Your task to perform on an android device: see creations saved in the google photos Image 0: 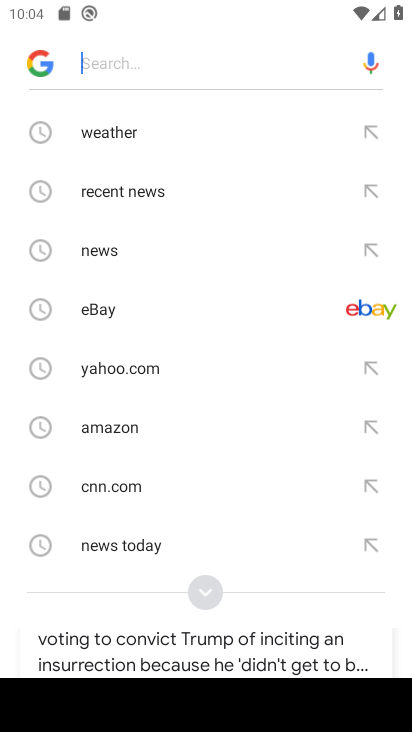
Step 0: press home button
Your task to perform on an android device: see creations saved in the google photos Image 1: 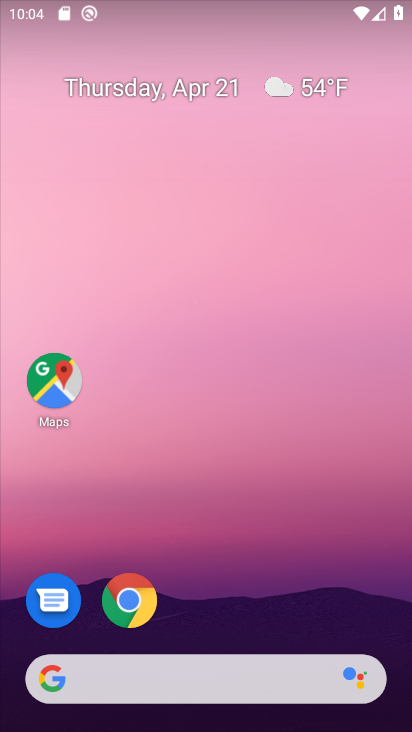
Step 1: drag from (220, 587) to (234, 64)
Your task to perform on an android device: see creations saved in the google photos Image 2: 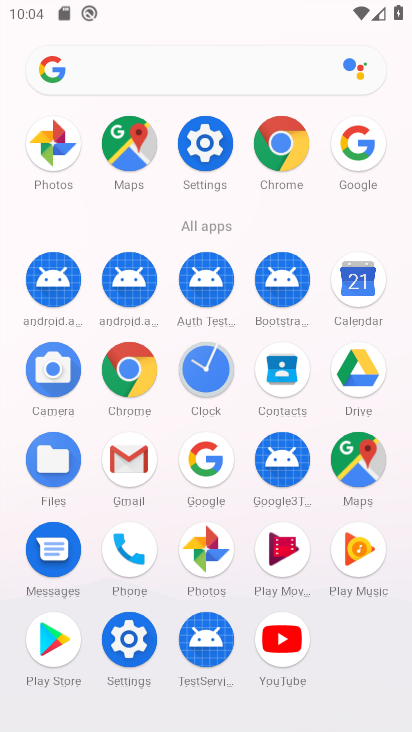
Step 2: click (208, 547)
Your task to perform on an android device: see creations saved in the google photos Image 3: 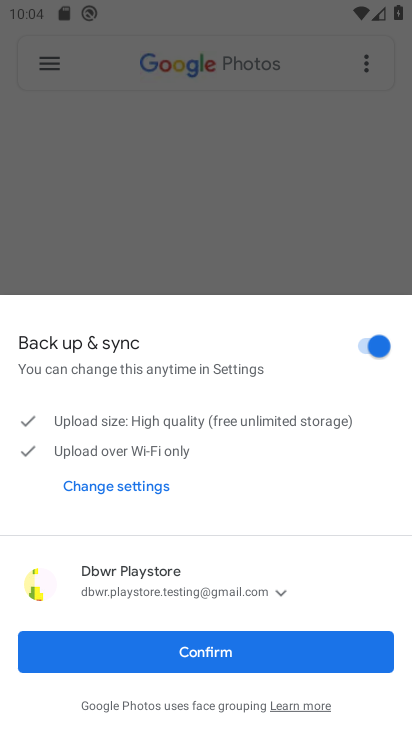
Step 3: click (219, 654)
Your task to perform on an android device: see creations saved in the google photos Image 4: 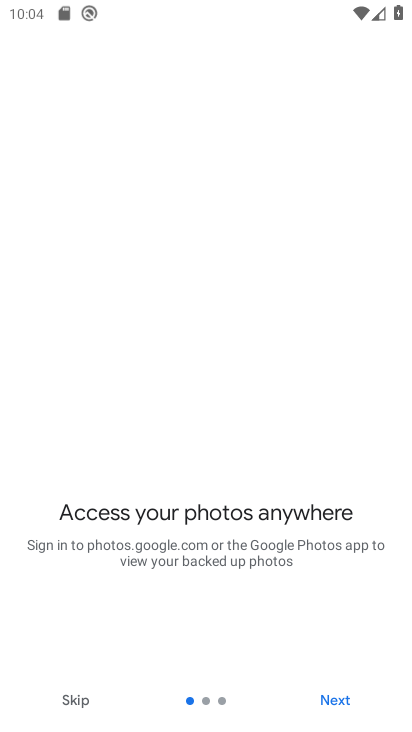
Step 4: click (332, 700)
Your task to perform on an android device: see creations saved in the google photos Image 5: 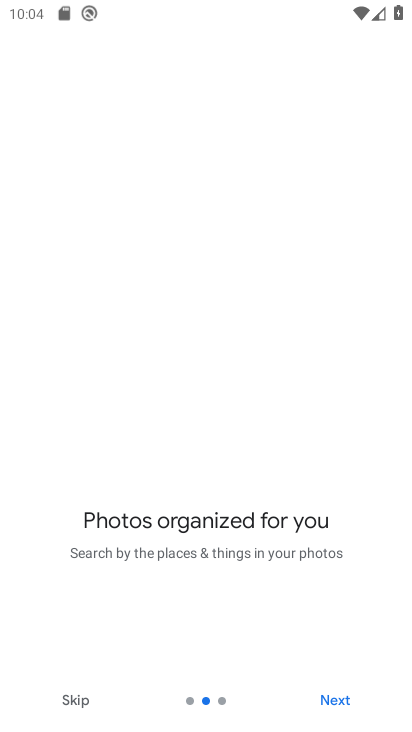
Step 5: click (333, 699)
Your task to perform on an android device: see creations saved in the google photos Image 6: 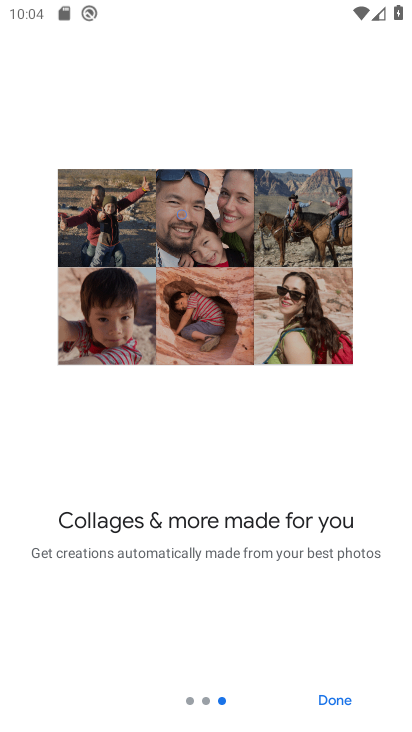
Step 6: click (333, 699)
Your task to perform on an android device: see creations saved in the google photos Image 7: 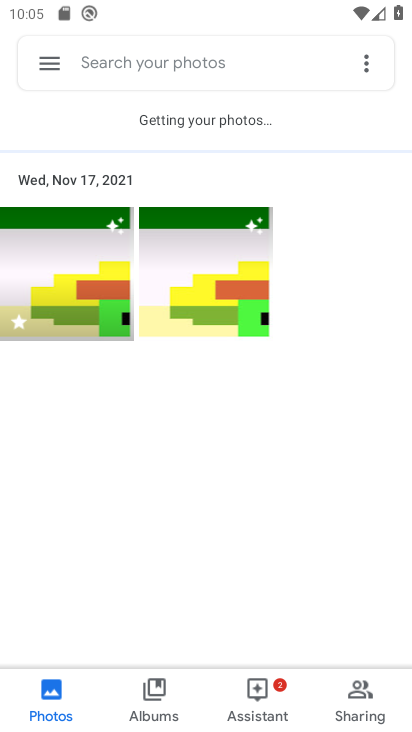
Step 7: click (143, 52)
Your task to perform on an android device: see creations saved in the google photos Image 8: 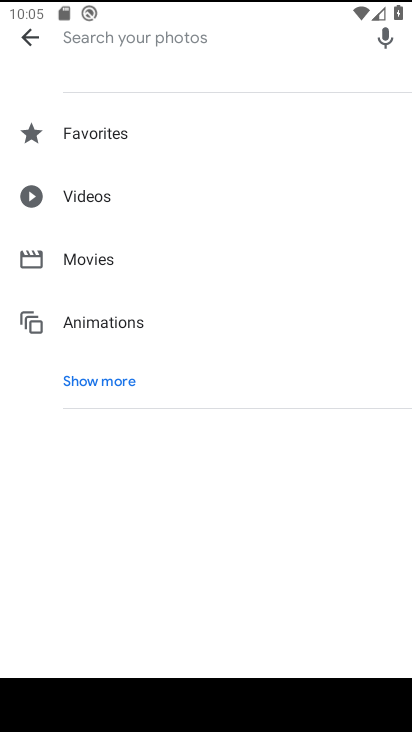
Step 8: type "creations"
Your task to perform on an android device: see creations saved in the google photos Image 9: 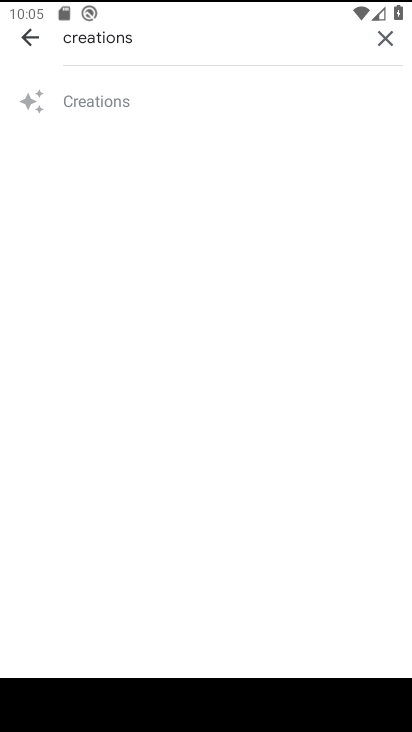
Step 9: click (124, 87)
Your task to perform on an android device: see creations saved in the google photos Image 10: 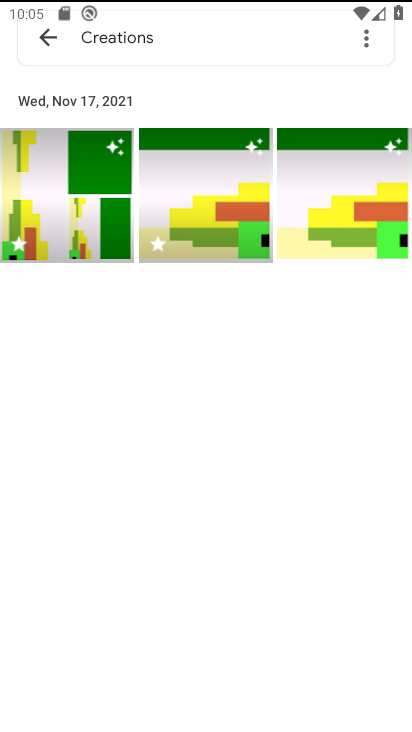
Step 10: task complete